Your task to perform on an android device: Go to ESPN.com Image 0: 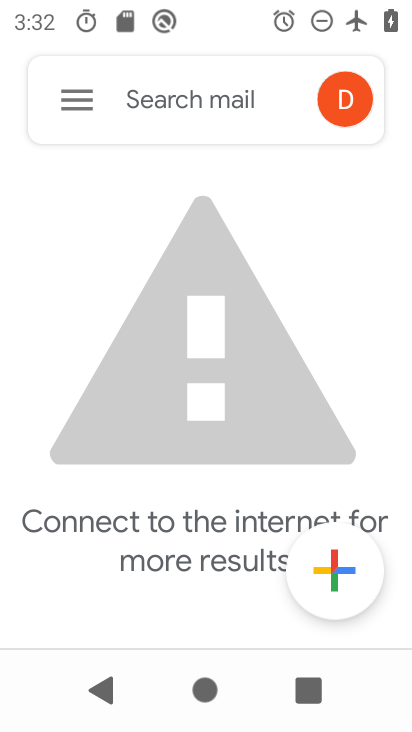
Step 0: press home button
Your task to perform on an android device: Go to ESPN.com Image 1: 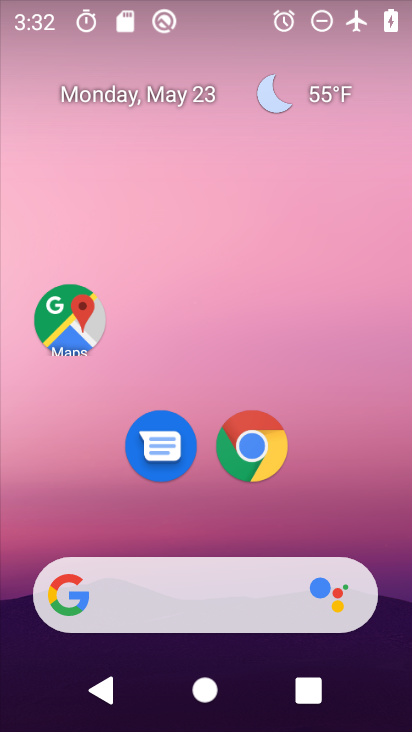
Step 1: click (259, 465)
Your task to perform on an android device: Go to ESPN.com Image 2: 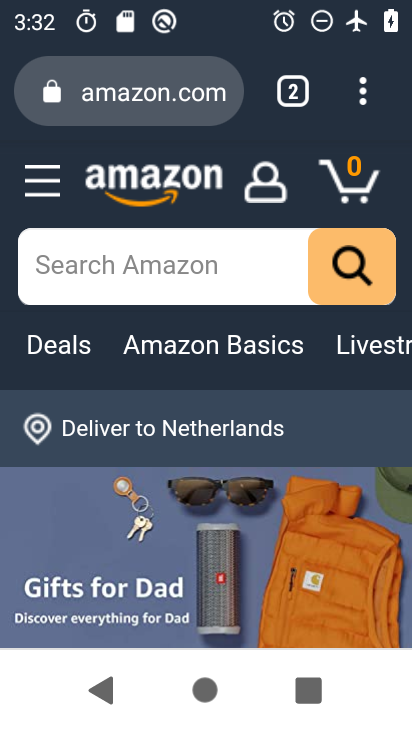
Step 2: click (297, 80)
Your task to perform on an android device: Go to ESPN.com Image 3: 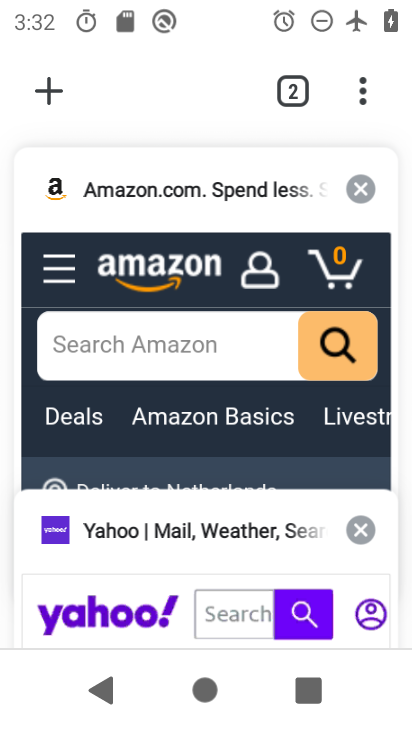
Step 3: click (45, 87)
Your task to perform on an android device: Go to ESPN.com Image 4: 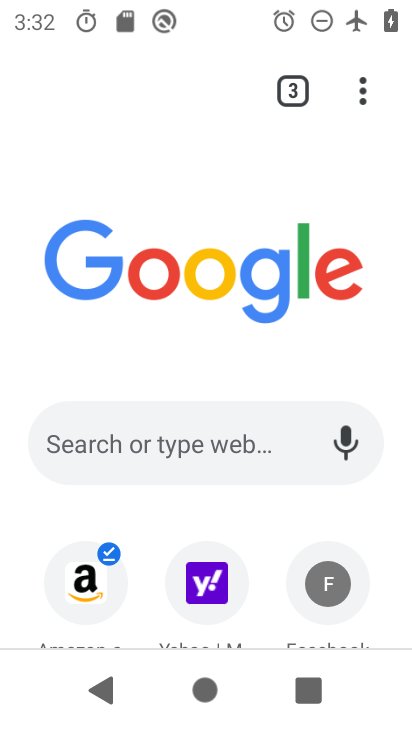
Step 4: drag from (236, 542) to (240, 333)
Your task to perform on an android device: Go to ESPN.com Image 5: 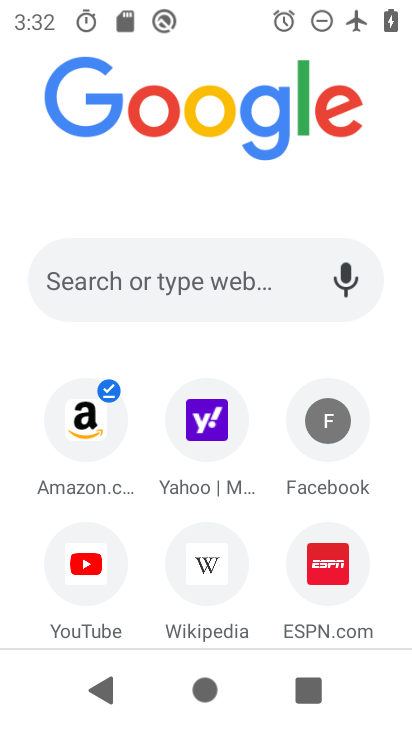
Step 5: click (342, 563)
Your task to perform on an android device: Go to ESPN.com Image 6: 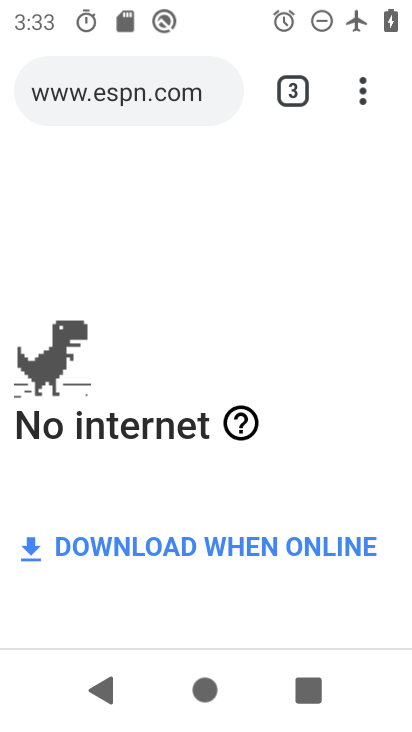
Step 6: task complete